Your task to perform on an android device: toggle location history Image 0: 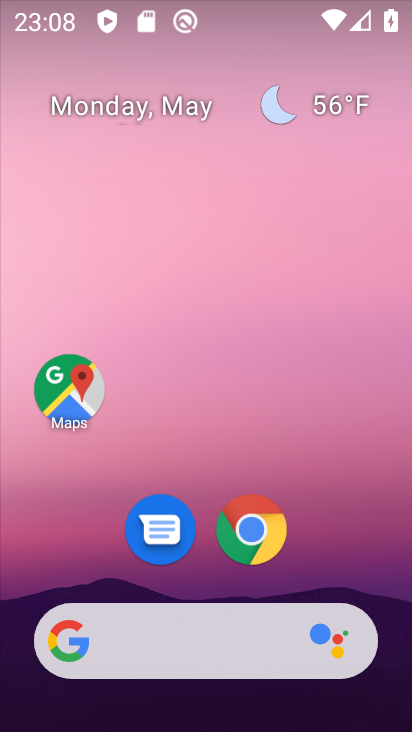
Step 0: drag from (335, 567) to (274, 153)
Your task to perform on an android device: toggle location history Image 1: 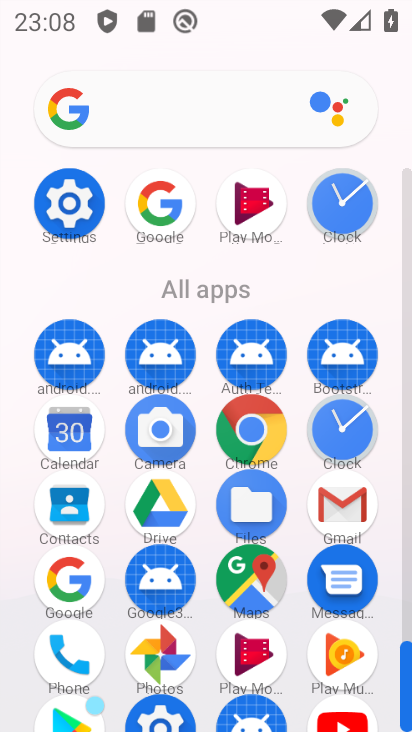
Step 1: click (68, 204)
Your task to perform on an android device: toggle location history Image 2: 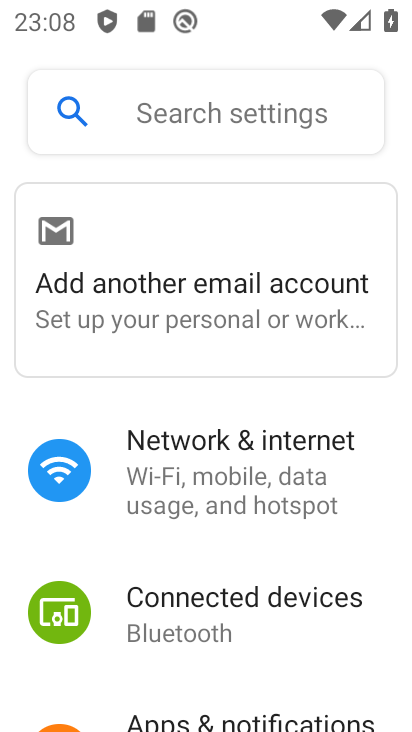
Step 2: drag from (234, 653) to (212, 495)
Your task to perform on an android device: toggle location history Image 3: 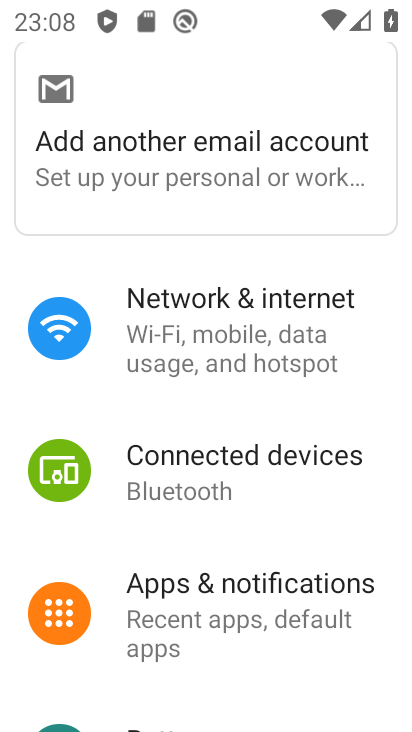
Step 3: drag from (216, 561) to (251, 419)
Your task to perform on an android device: toggle location history Image 4: 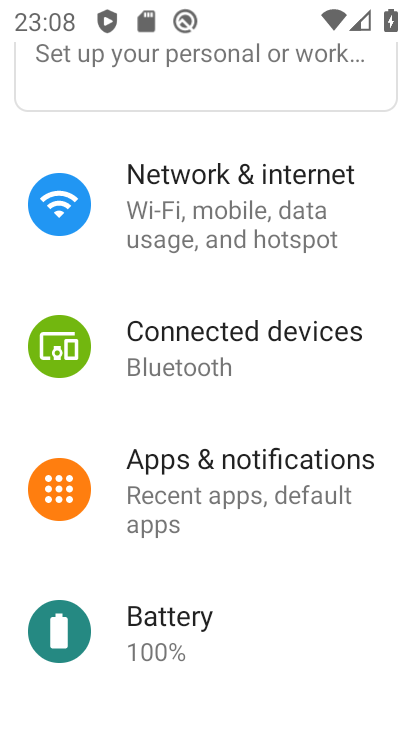
Step 4: drag from (268, 634) to (219, 405)
Your task to perform on an android device: toggle location history Image 5: 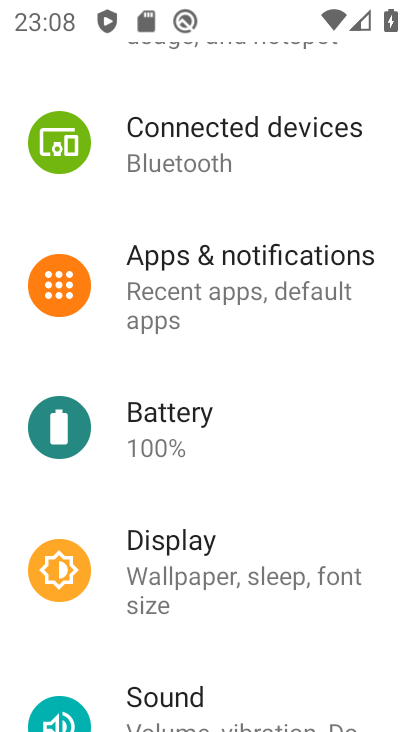
Step 5: drag from (215, 657) to (225, 423)
Your task to perform on an android device: toggle location history Image 6: 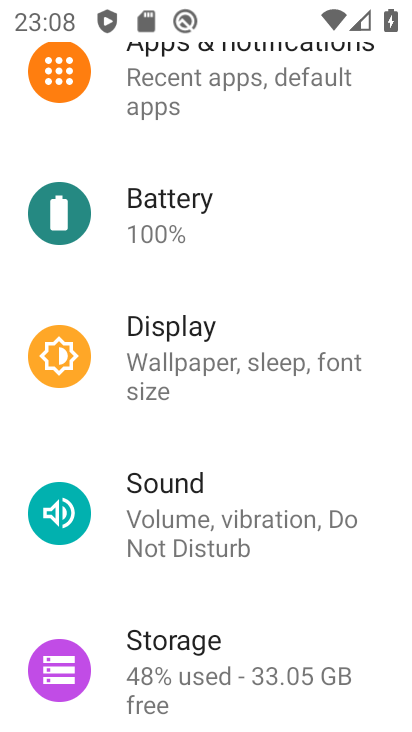
Step 6: drag from (279, 619) to (268, 474)
Your task to perform on an android device: toggle location history Image 7: 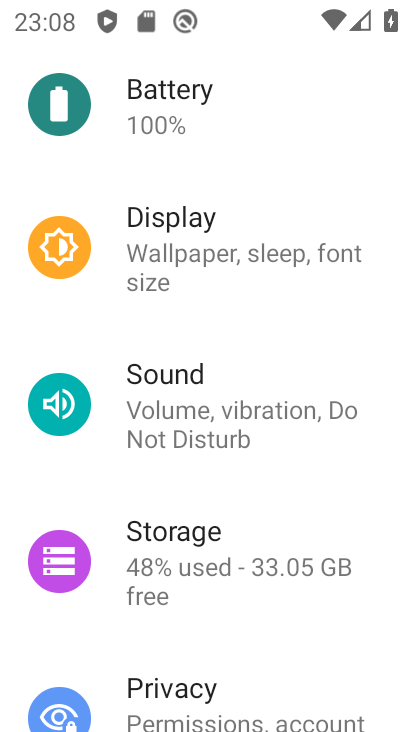
Step 7: drag from (199, 622) to (246, 485)
Your task to perform on an android device: toggle location history Image 8: 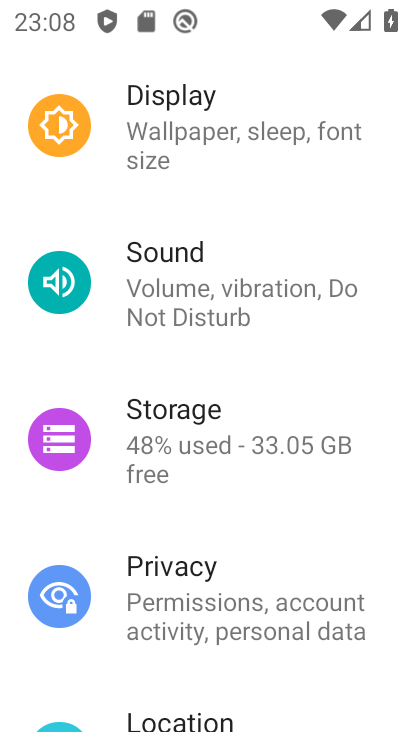
Step 8: drag from (233, 557) to (271, 405)
Your task to perform on an android device: toggle location history Image 9: 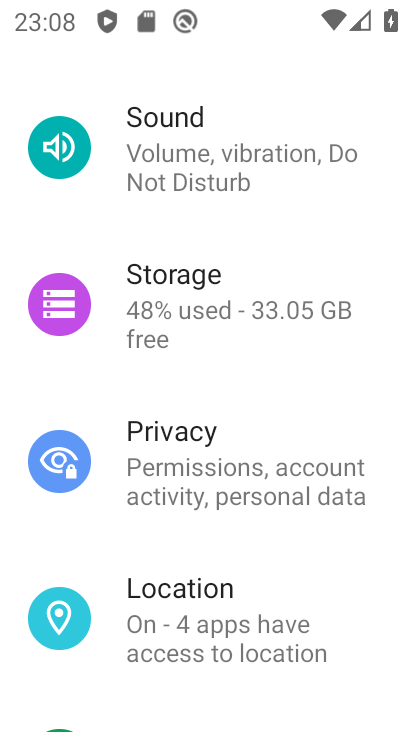
Step 9: click (196, 601)
Your task to perform on an android device: toggle location history Image 10: 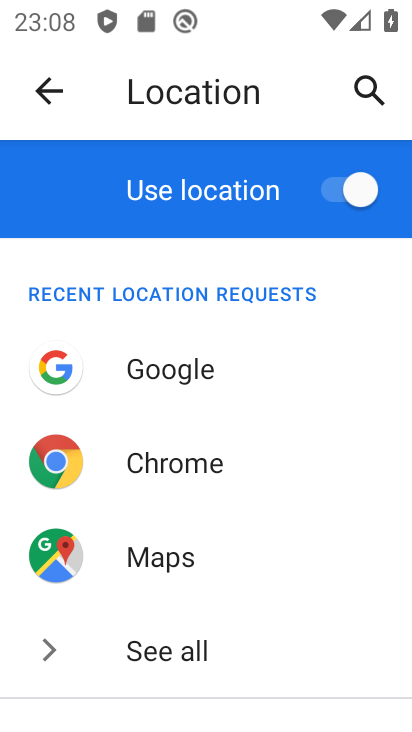
Step 10: drag from (239, 668) to (278, 514)
Your task to perform on an android device: toggle location history Image 11: 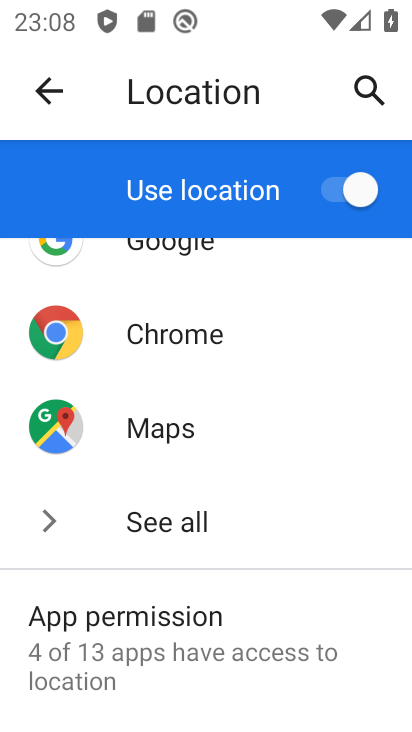
Step 11: drag from (242, 623) to (295, 484)
Your task to perform on an android device: toggle location history Image 12: 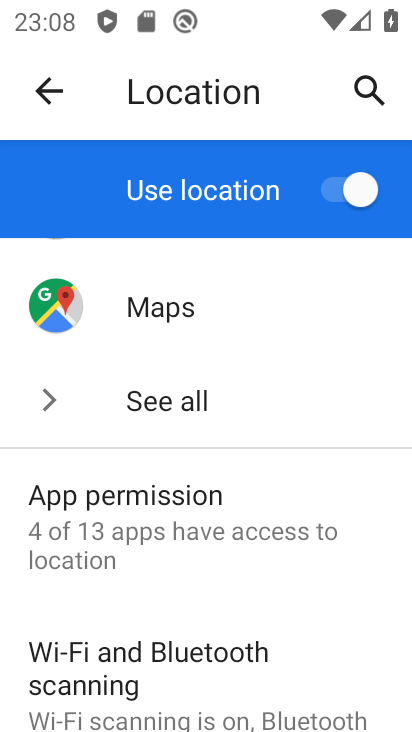
Step 12: drag from (186, 611) to (221, 432)
Your task to perform on an android device: toggle location history Image 13: 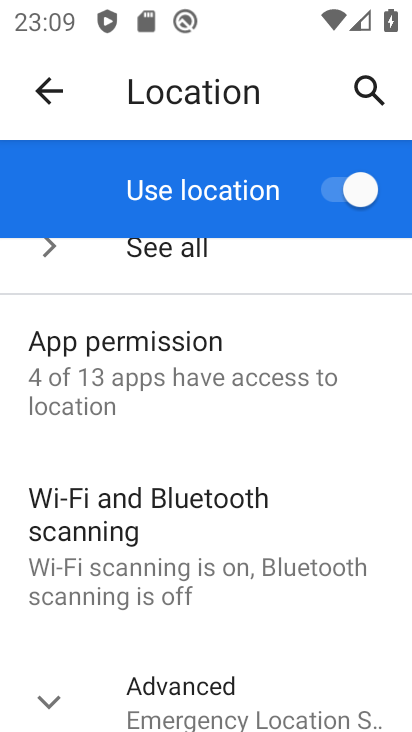
Step 13: drag from (230, 634) to (286, 471)
Your task to perform on an android device: toggle location history Image 14: 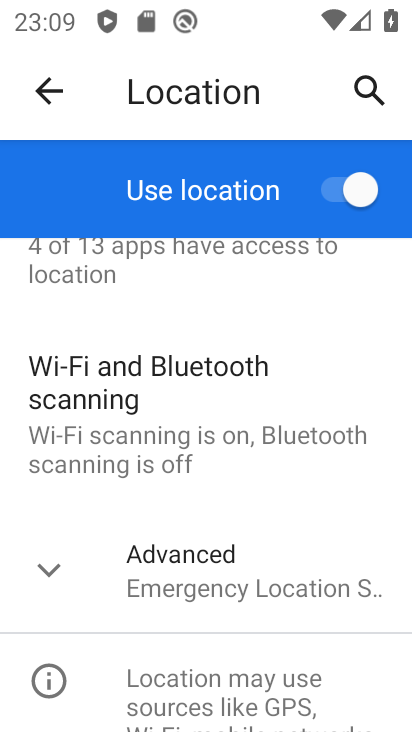
Step 14: click (242, 586)
Your task to perform on an android device: toggle location history Image 15: 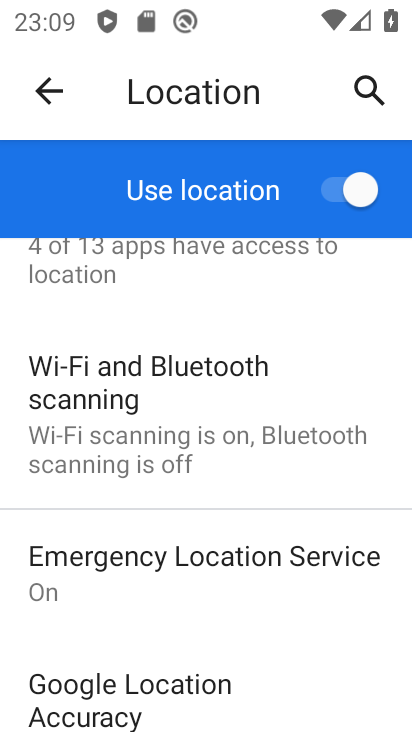
Step 15: drag from (223, 618) to (288, 533)
Your task to perform on an android device: toggle location history Image 16: 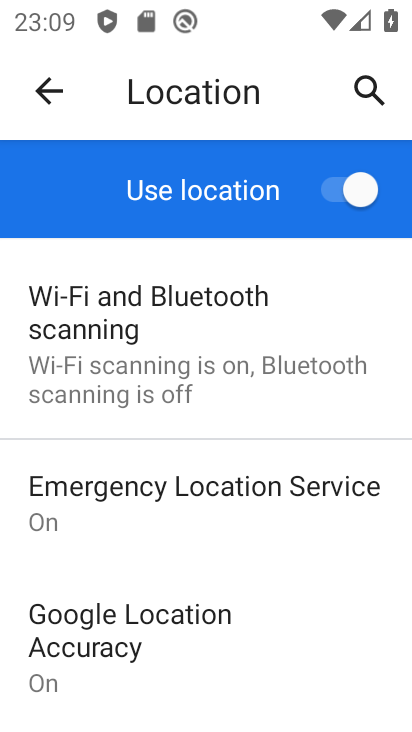
Step 16: drag from (216, 654) to (265, 557)
Your task to perform on an android device: toggle location history Image 17: 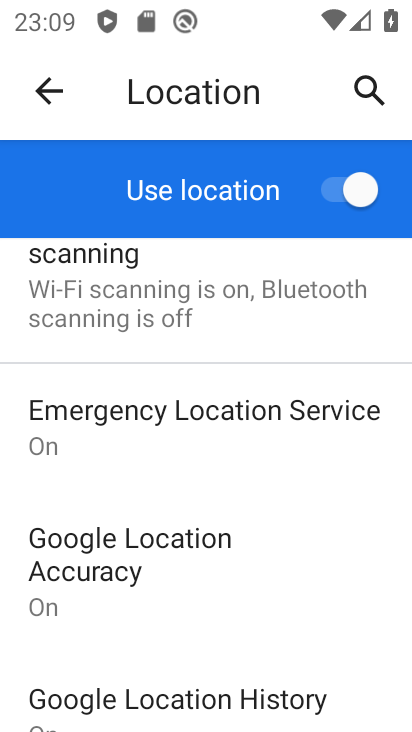
Step 17: drag from (188, 629) to (298, 487)
Your task to perform on an android device: toggle location history Image 18: 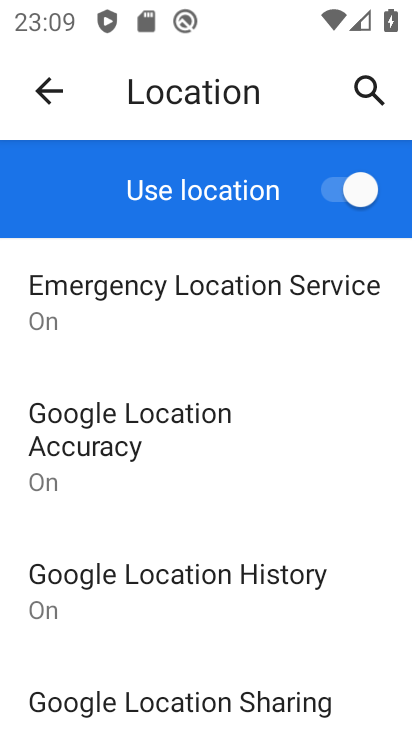
Step 18: click (275, 577)
Your task to perform on an android device: toggle location history Image 19: 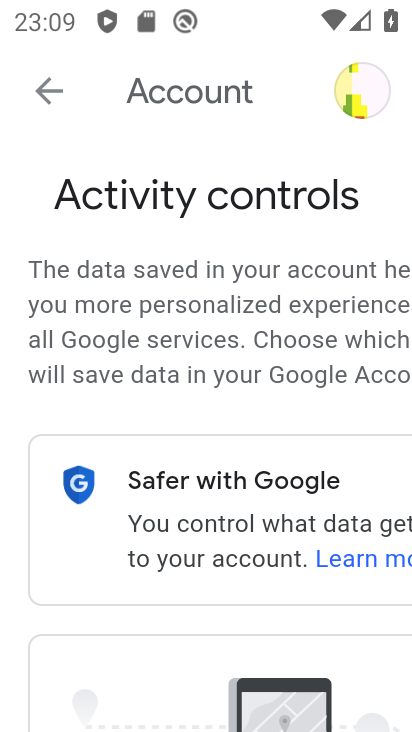
Step 19: task complete